Your task to perform on an android device: delete a single message in the gmail app Image 0: 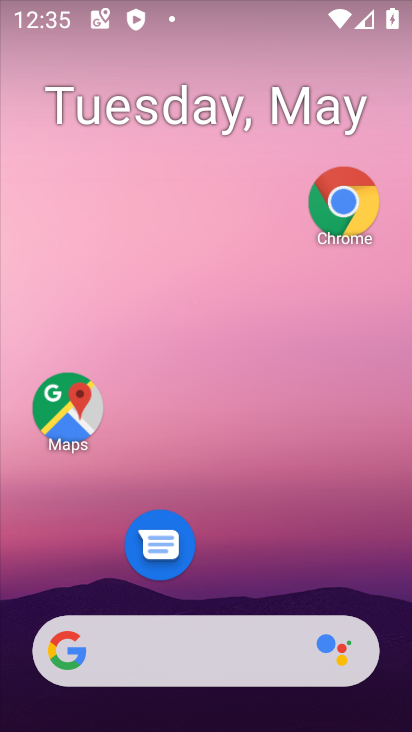
Step 0: drag from (211, 575) to (205, 45)
Your task to perform on an android device: delete a single message in the gmail app Image 1: 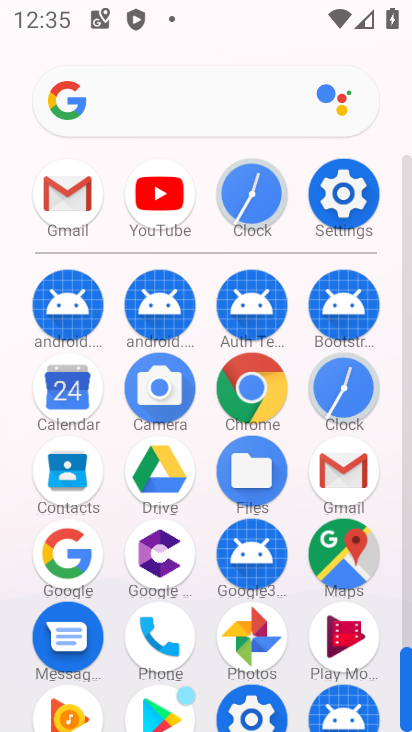
Step 1: click (66, 182)
Your task to perform on an android device: delete a single message in the gmail app Image 2: 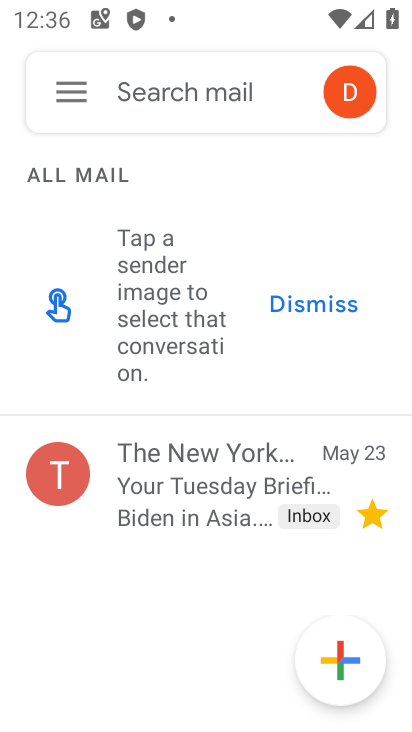
Step 2: click (51, 490)
Your task to perform on an android device: delete a single message in the gmail app Image 3: 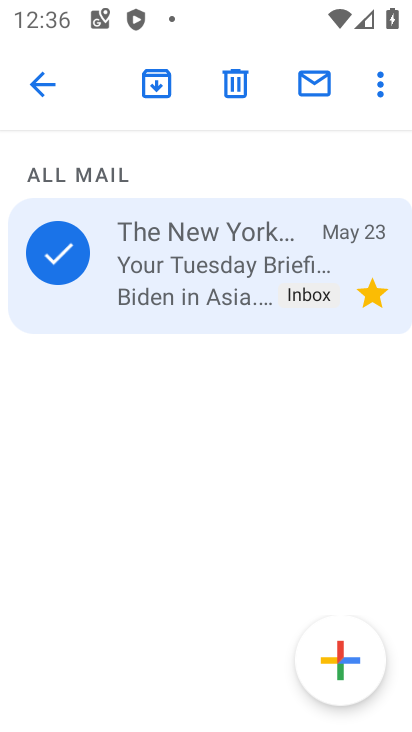
Step 3: click (235, 90)
Your task to perform on an android device: delete a single message in the gmail app Image 4: 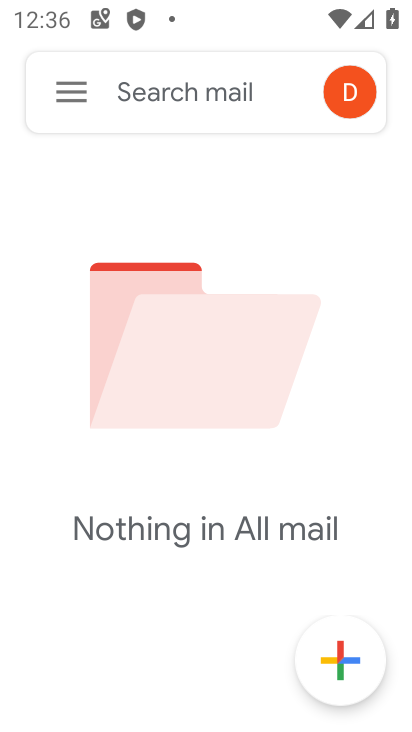
Step 4: task complete